Your task to perform on an android device: Check the news Image 0: 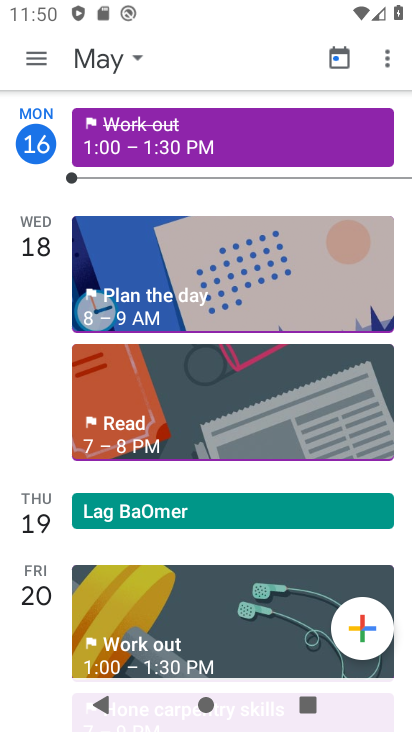
Step 0: press home button
Your task to perform on an android device: Check the news Image 1: 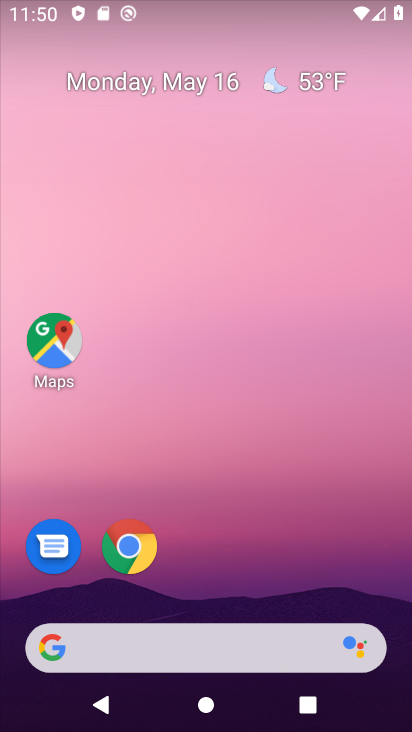
Step 1: drag from (246, 561) to (265, 111)
Your task to perform on an android device: Check the news Image 2: 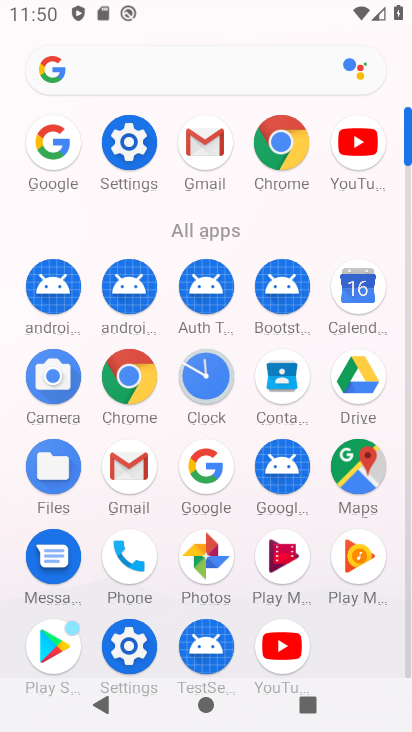
Step 2: click (56, 135)
Your task to perform on an android device: Check the news Image 3: 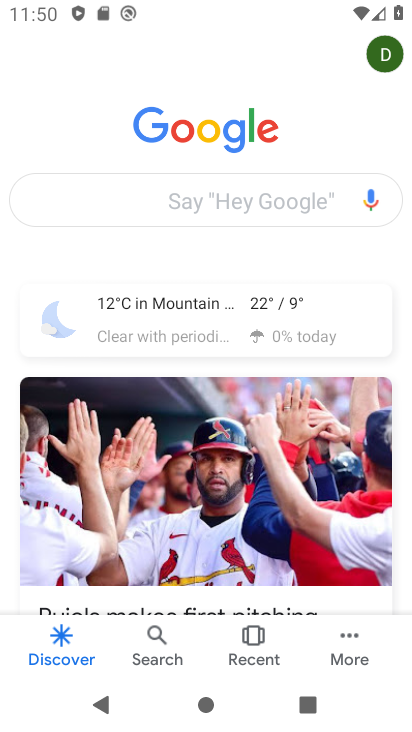
Step 3: click (199, 197)
Your task to perform on an android device: Check the news Image 4: 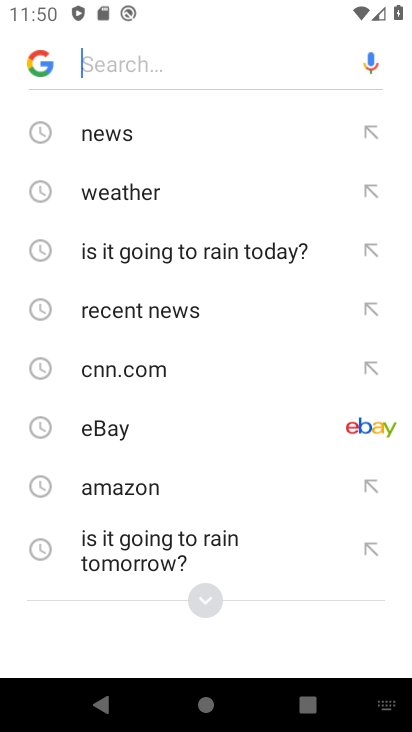
Step 4: click (123, 135)
Your task to perform on an android device: Check the news Image 5: 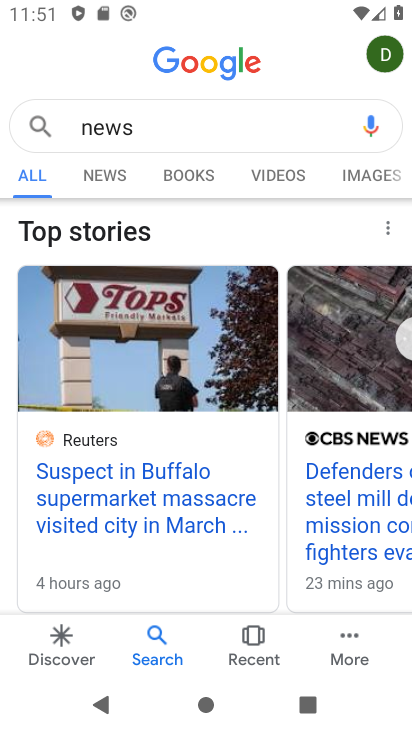
Step 5: task complete